Your task to perform on an android device: Go to ESPN.com Image 0: 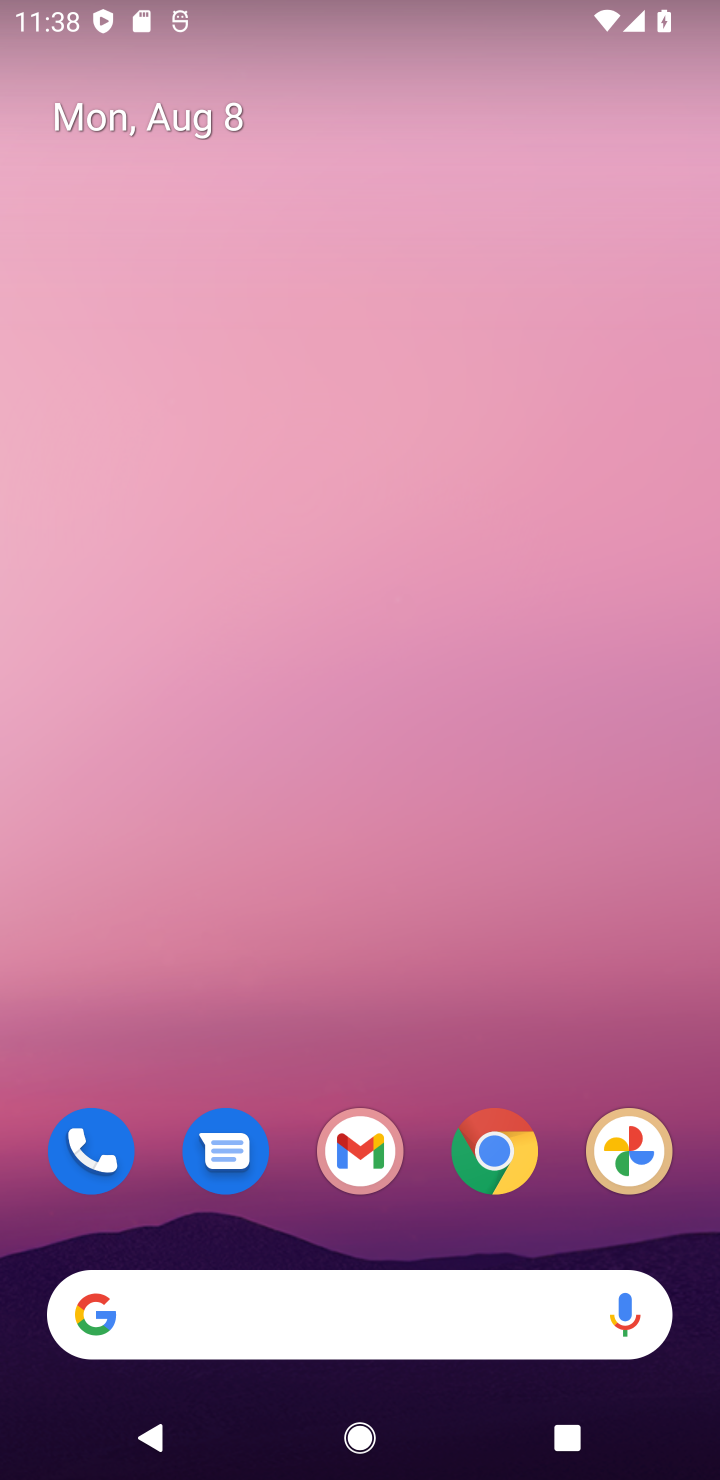
Step 0: click (510, 1145)
Your task to perform on an android device: Go to ESPN.com Image 1: 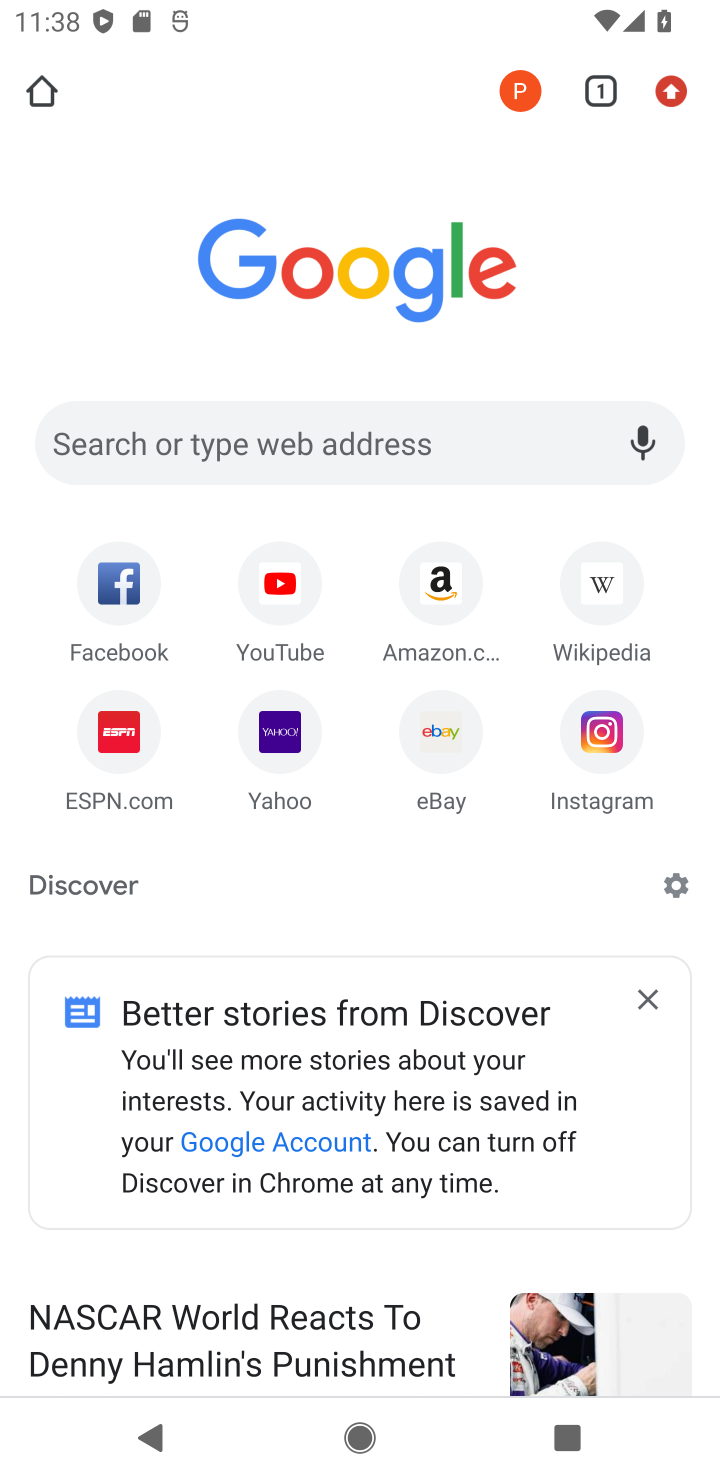
Step 1: click (116, 736)
Your task to perform on an android device: Go to ESPN.com Image 2: 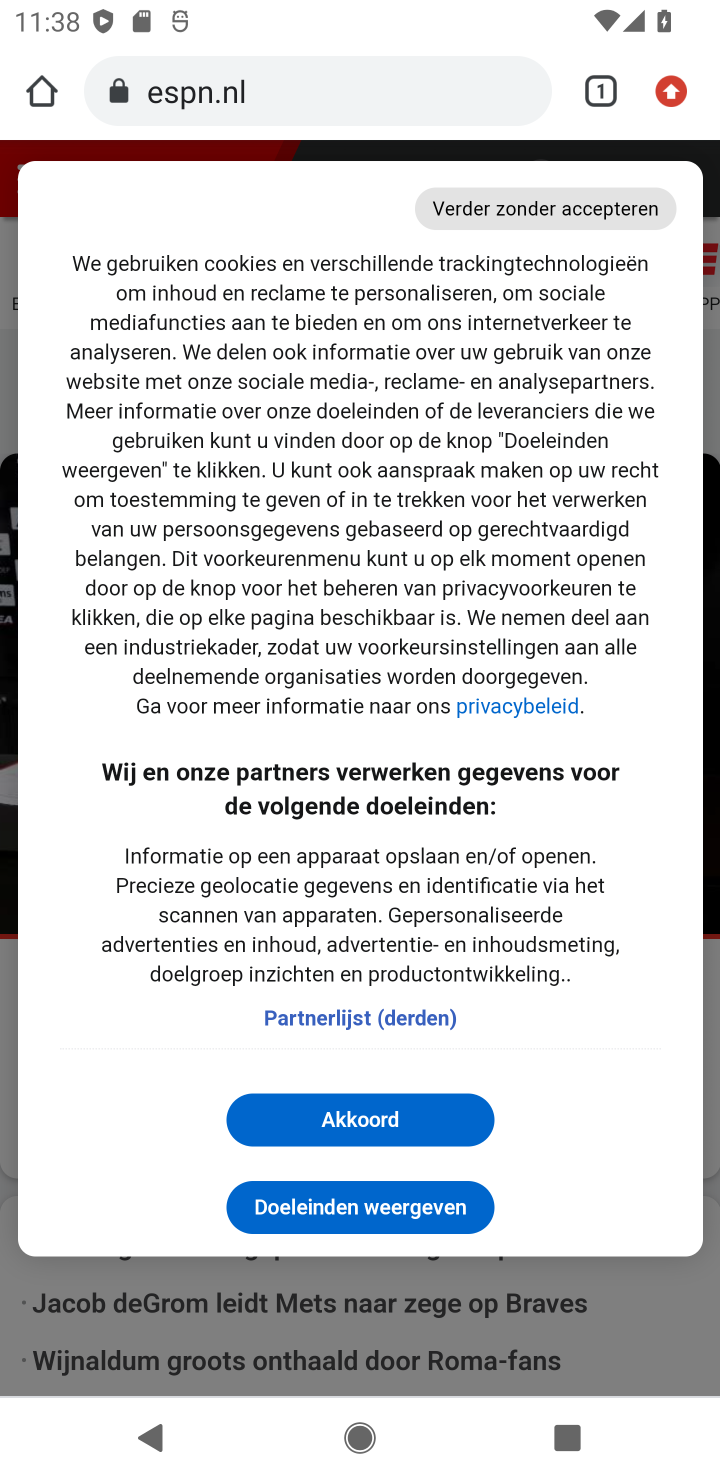
Step 2: task complete